Your task to perform on an android device: check data usage Image 0: 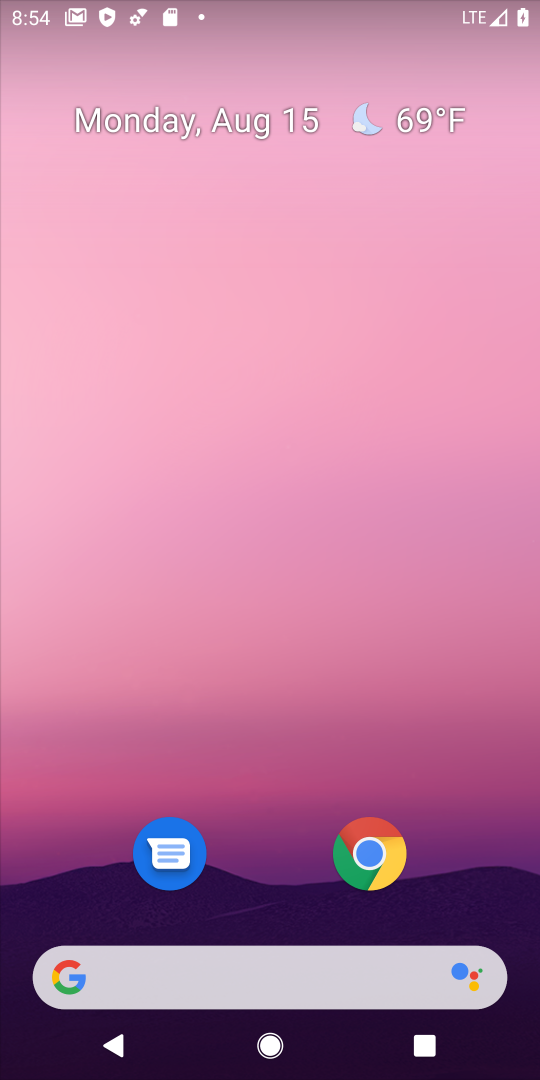
Step 0: drag from (237, 11) to (231, 793)
Your task to perform on an android device: check data usage Image 1: 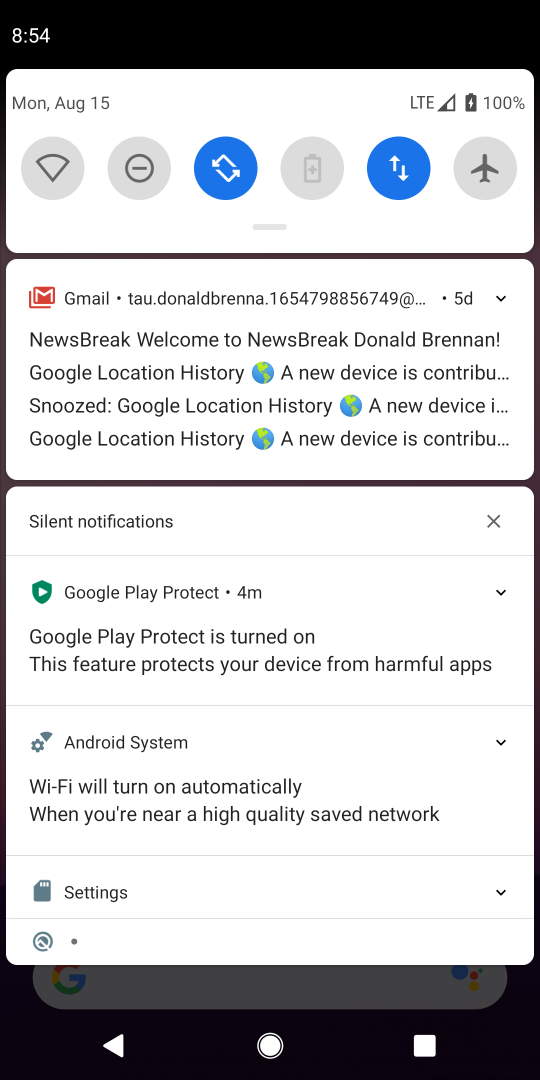
Step 1: click (396, 153)
Your task to perform on an android device: check data usage Image 2: 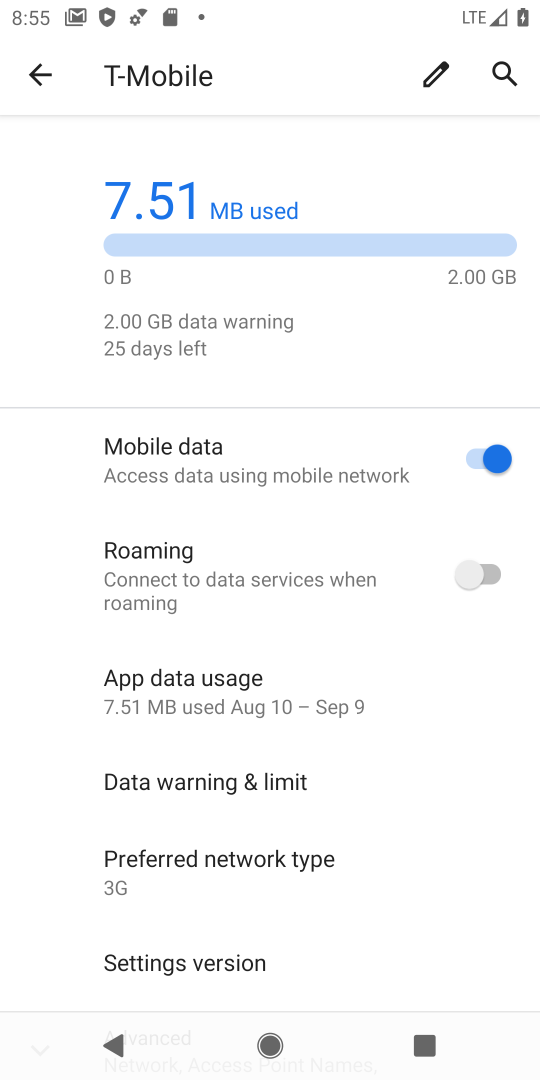
Step 2: task complete